Your task to perform on an android device: Open battery settings Image 0: 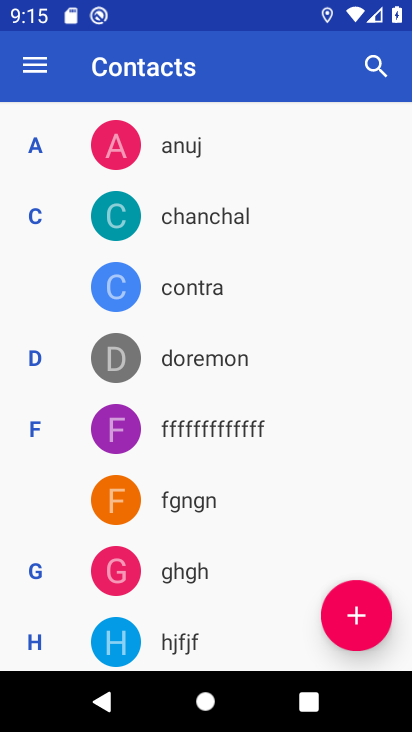
Step 0: press home button
Your task to perform on an android device: Open battery settings Image 1: 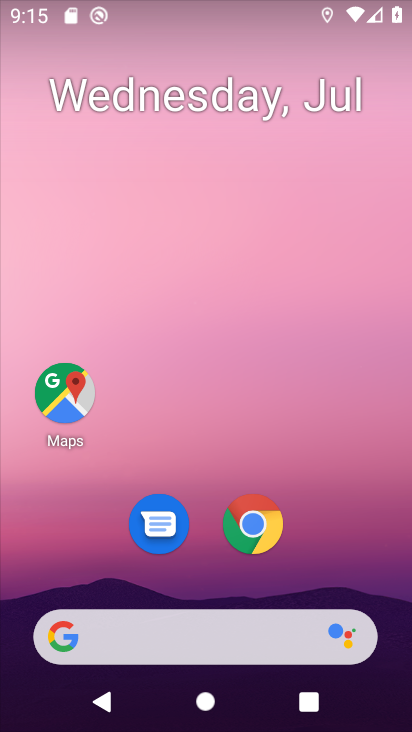
Step 1: drag from (333, 564) to (351, 20)
Your task to perform on an android device: Open battery settings Image 2: 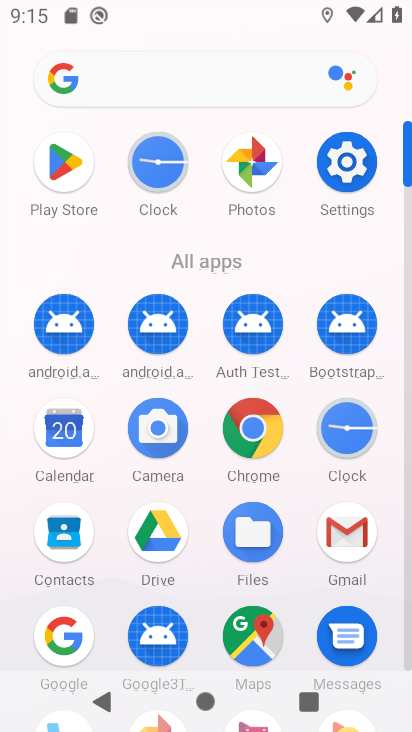
Step 2: click (356, 155)
Your task to perform on an android device: Open battery settings Image 3: 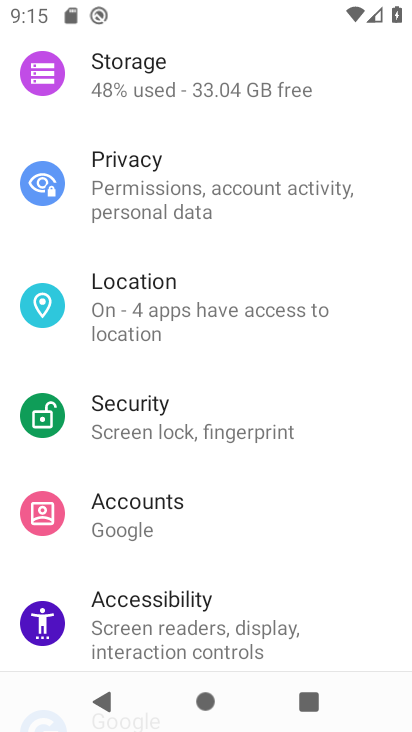
Step 3: drag from (227, 71) to (177, 650)
Your task to perform on an android device: Open battery settings Image 4: 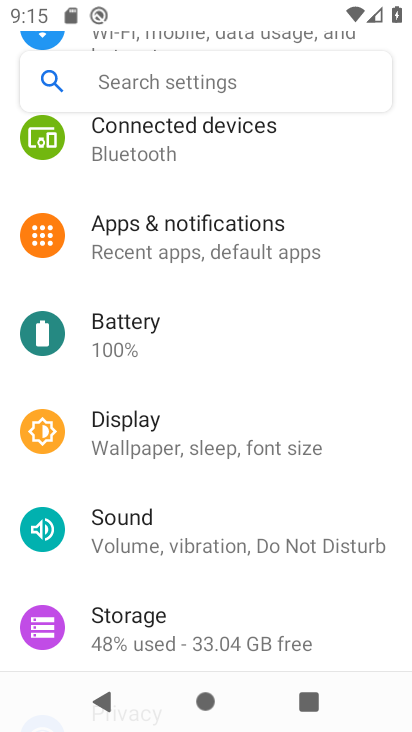
Step 4: click (134, 327)
Your task to perform on an android device: Open battery settings Image 5: 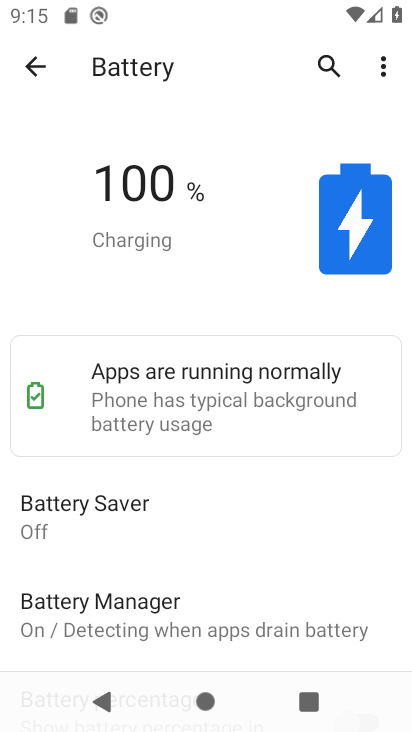
Step 5: task complete